Your task to perform on an android device: Search for Mexican restaurants on Maps Image 0: 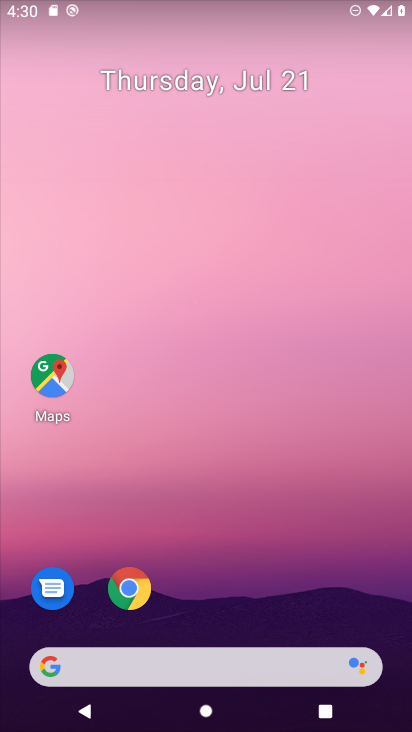
Step 0: drag from (215, 560) to (235, 148)
Your task to perform on an android device: Search for Mexican restaurants on Maps Image 1: 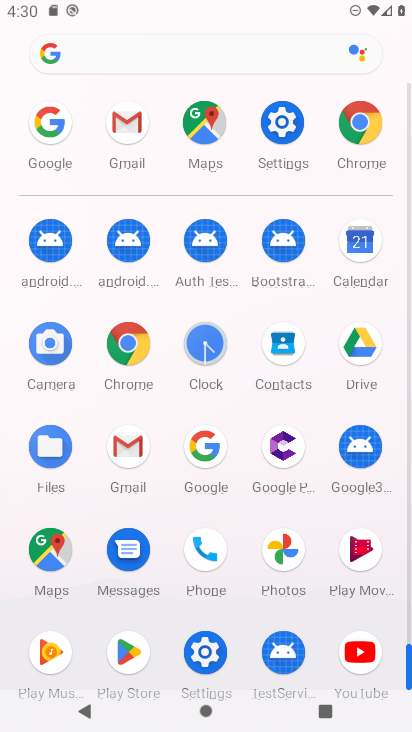
Step 1: click (62, 554)
Your task to perform on an android device: Search for Mexican restaurants on Maps Image 2: 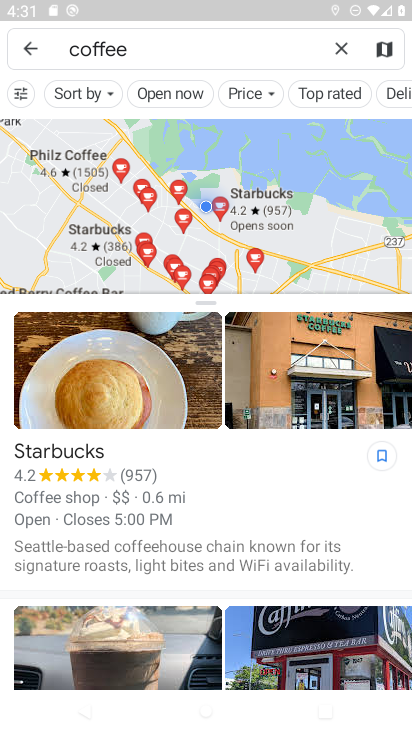
Step 2: click (345, 49)
Your task to perform on an android device: Search for Mexican restaurants on Maps Image 3: 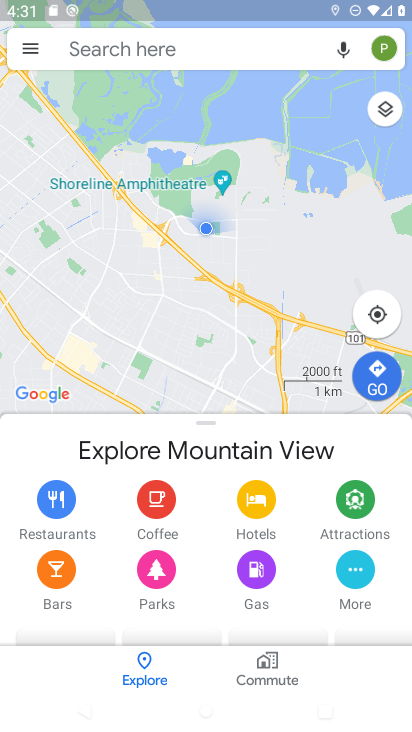
Step 3: click (244, 51)
Your task to perform on an android device: Search for Mexican restaurants on Maps Image 4: 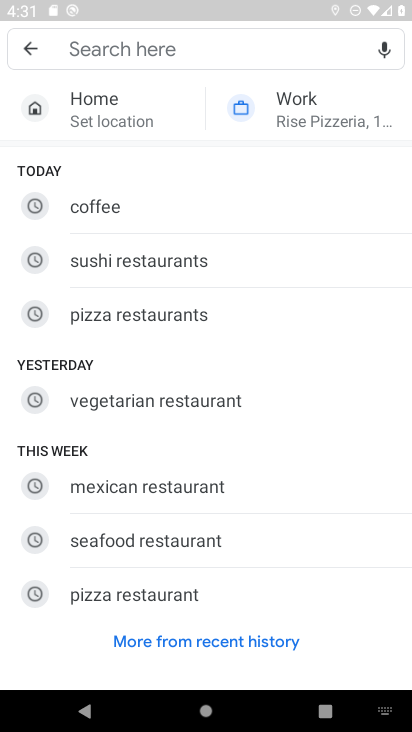
Step 4: click (161, 486)
Your task to perform on an android device: Search for Mexican restaurants on Maps Image 5: 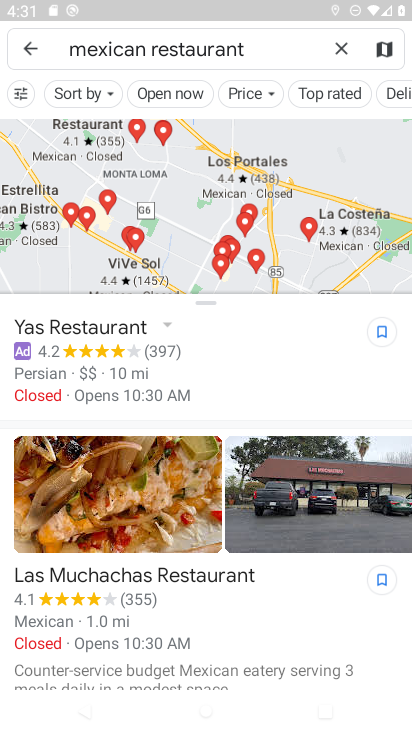
Step 5: task complete